Your task to perform on an android device: Open maps Image 0: 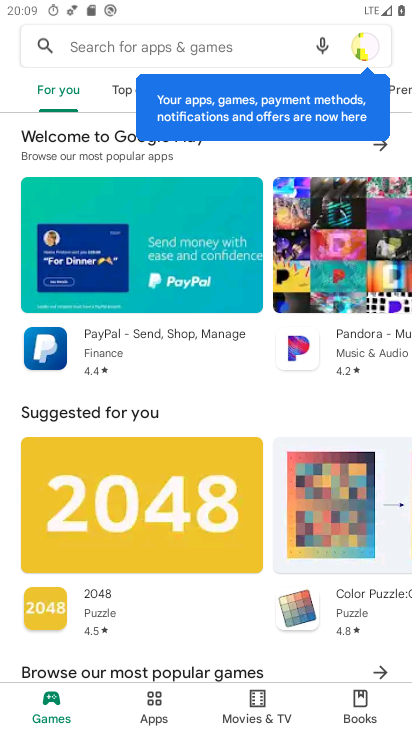
Step 0: press home button
Your task to perform on an android device: Open maps Image 1: 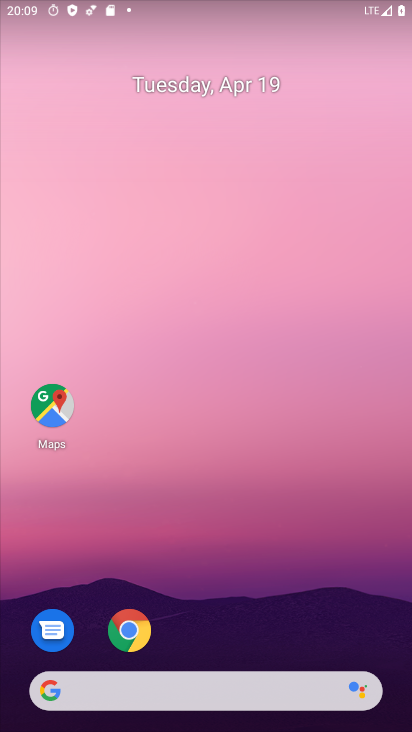
Step 1: click (44, 411)
Your task to perform on an android device: Open maps Image 2: 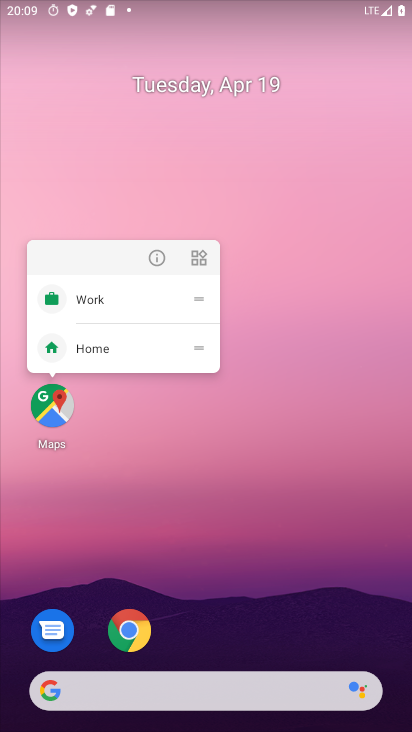
Step 2: click (44, 411)
Your task to perform on an android device: Open maps Image 3: 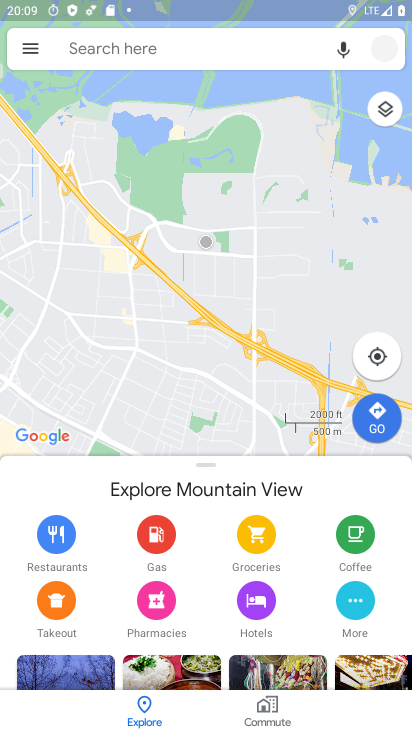
Step 3: task complete